Your task to perform on an android device: turn on improve location accuracy Image 0: 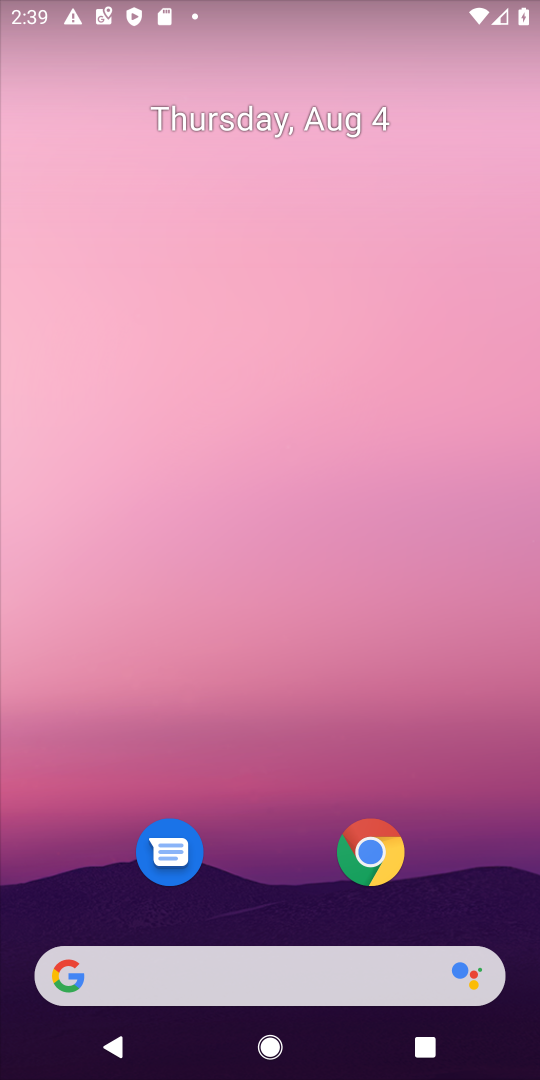
Step 0: drag from (239, 917) to (319, 42)
Your task to perform on an android device: turn on improve location accuracy Image 1: 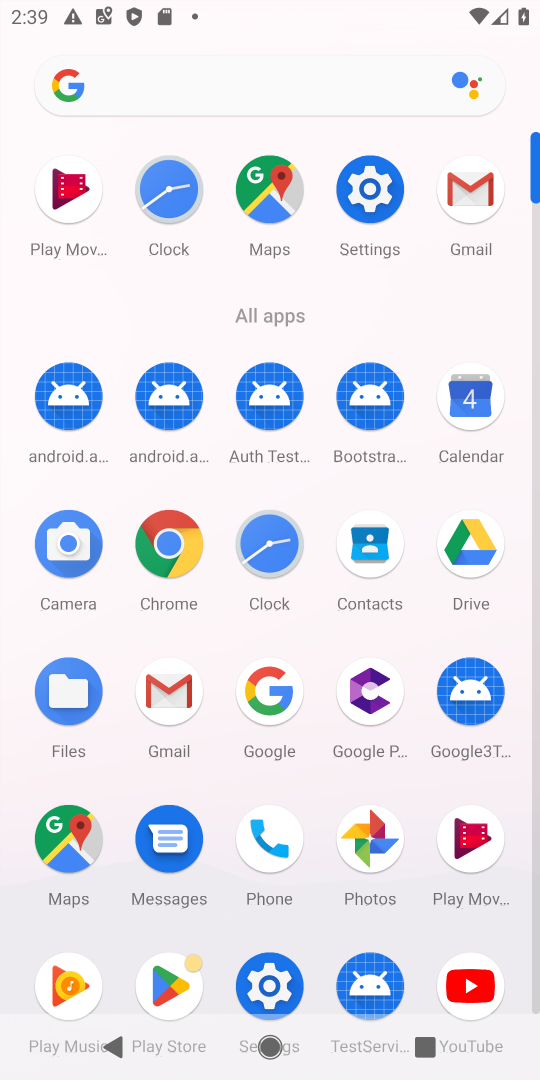
Step 1: click (362, 172)
Your task to perform on an android device: turn on improve location accuracy Image 2: 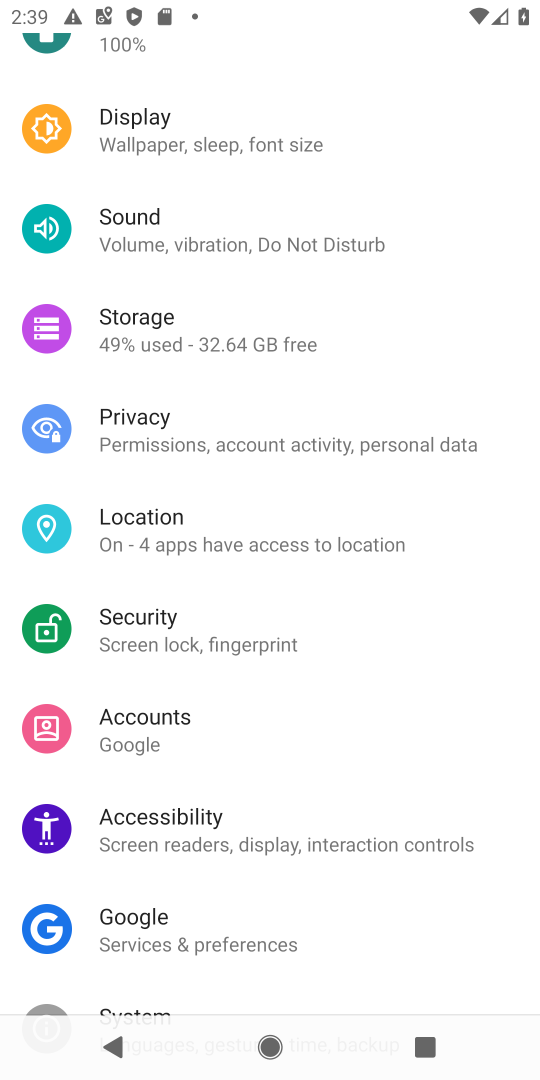
Step 2: click (151, 526)
Your task to perform on an android device: turn on improve location accuracy Image 3: 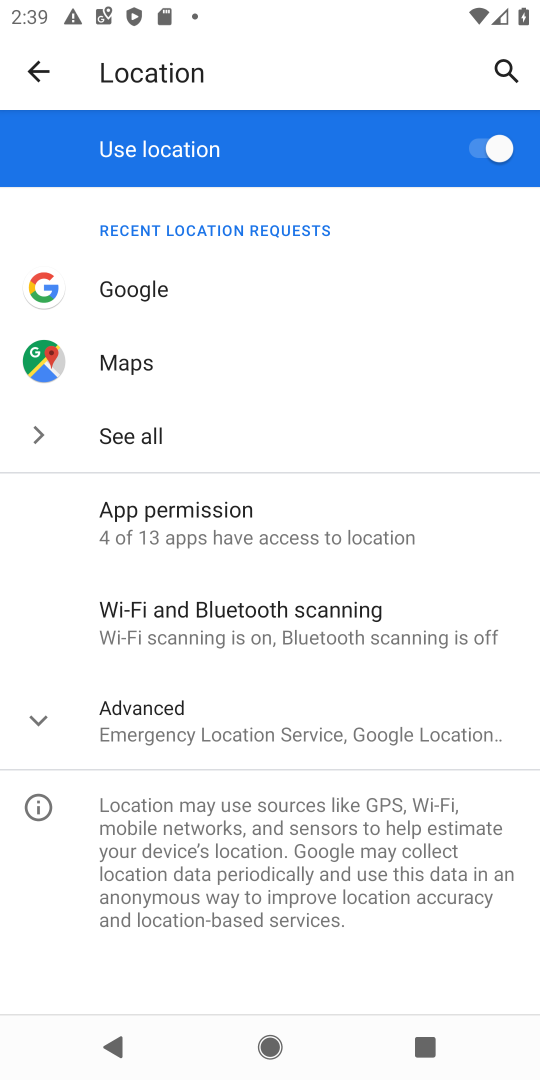
Step 3: click (155, 732)
Your task to perform on an android device: turn on improve location accuracy Image 4: 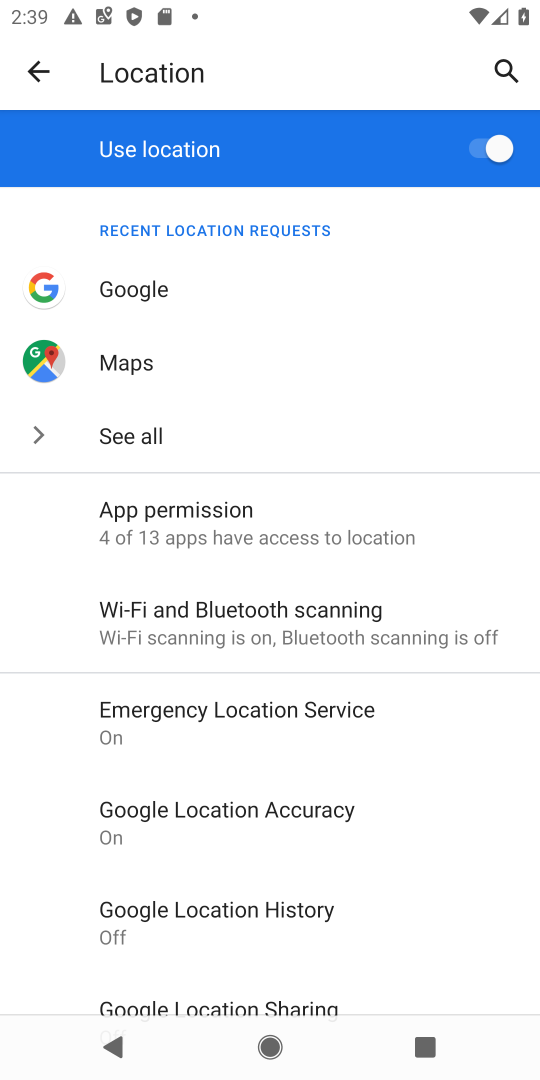
Step 4: click (228, 827)
Your task to perform on an android device: turn on improve location accuracy Image 5: 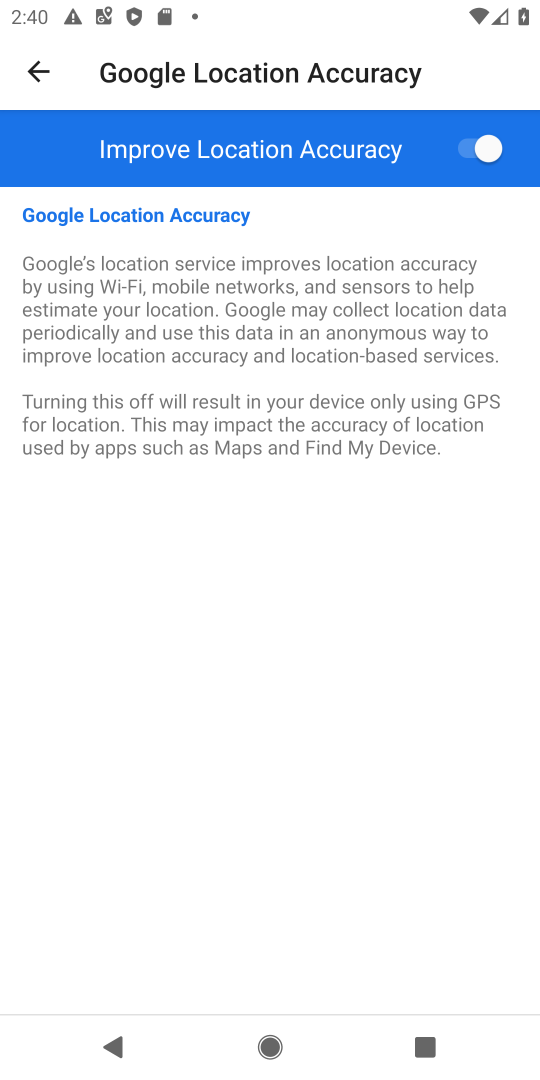
Step 5: task complete